Your task to perform on an android device: Go to wifi settings Image 0: 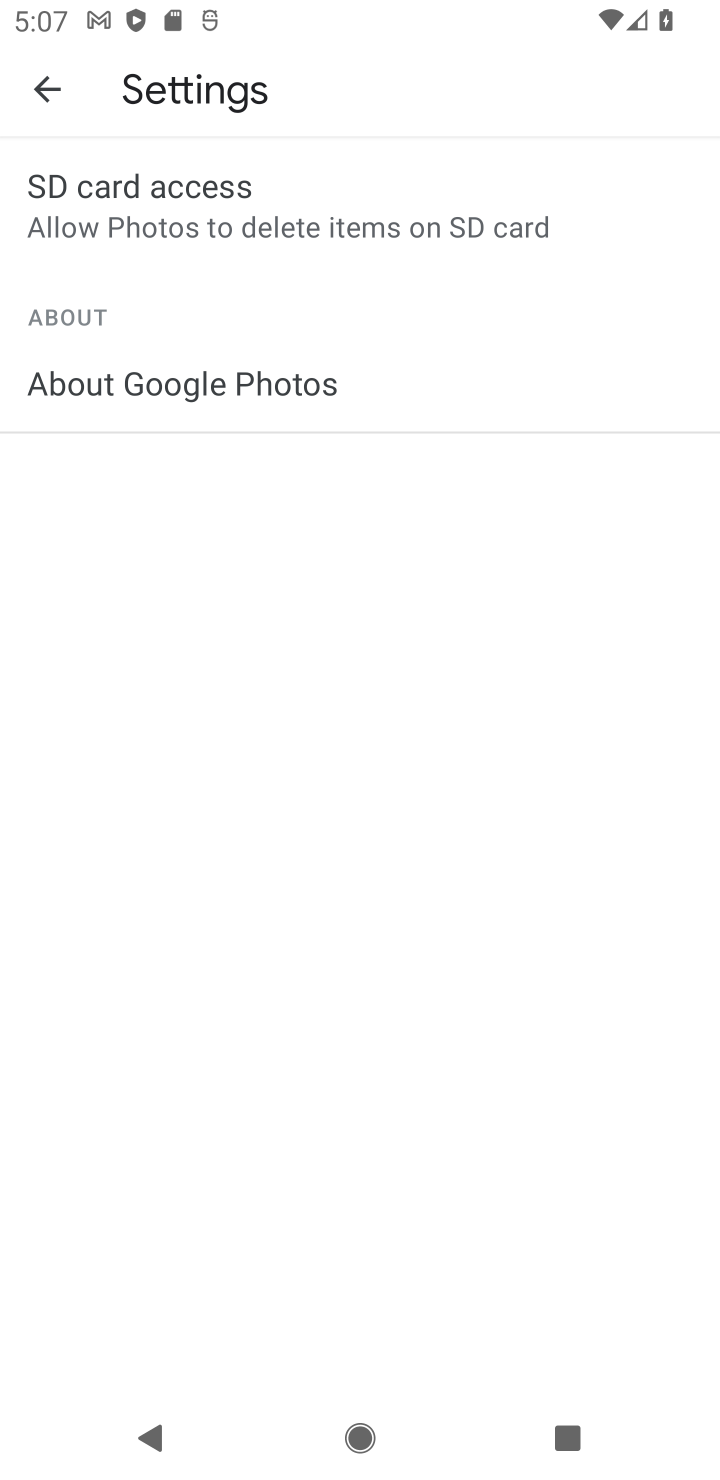
Step 0: press home button
Your task to perform on an android device: Go to wifi settings Image 1: 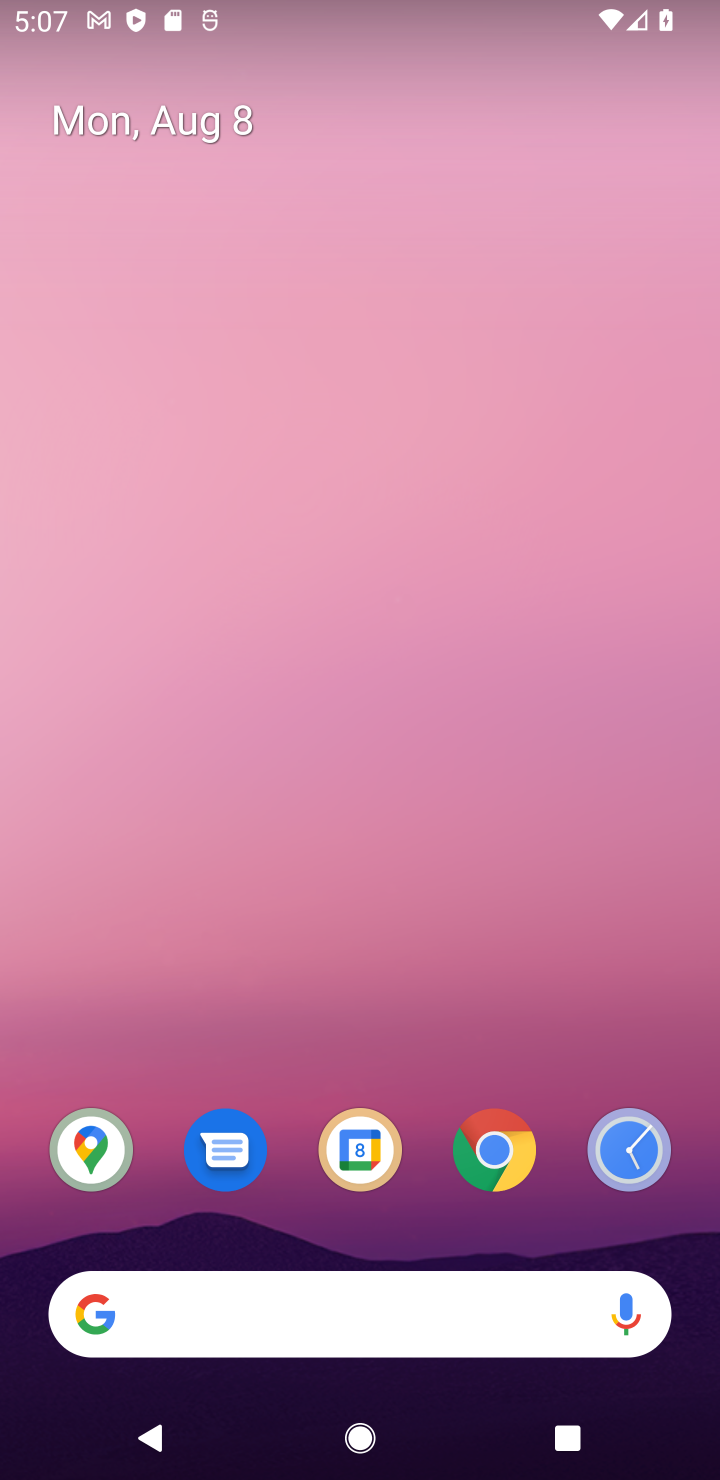
Step 1: drag from (439, 1239) to (405, 325)
Your task to perform on an android device: Go to wifi settings Image 2: 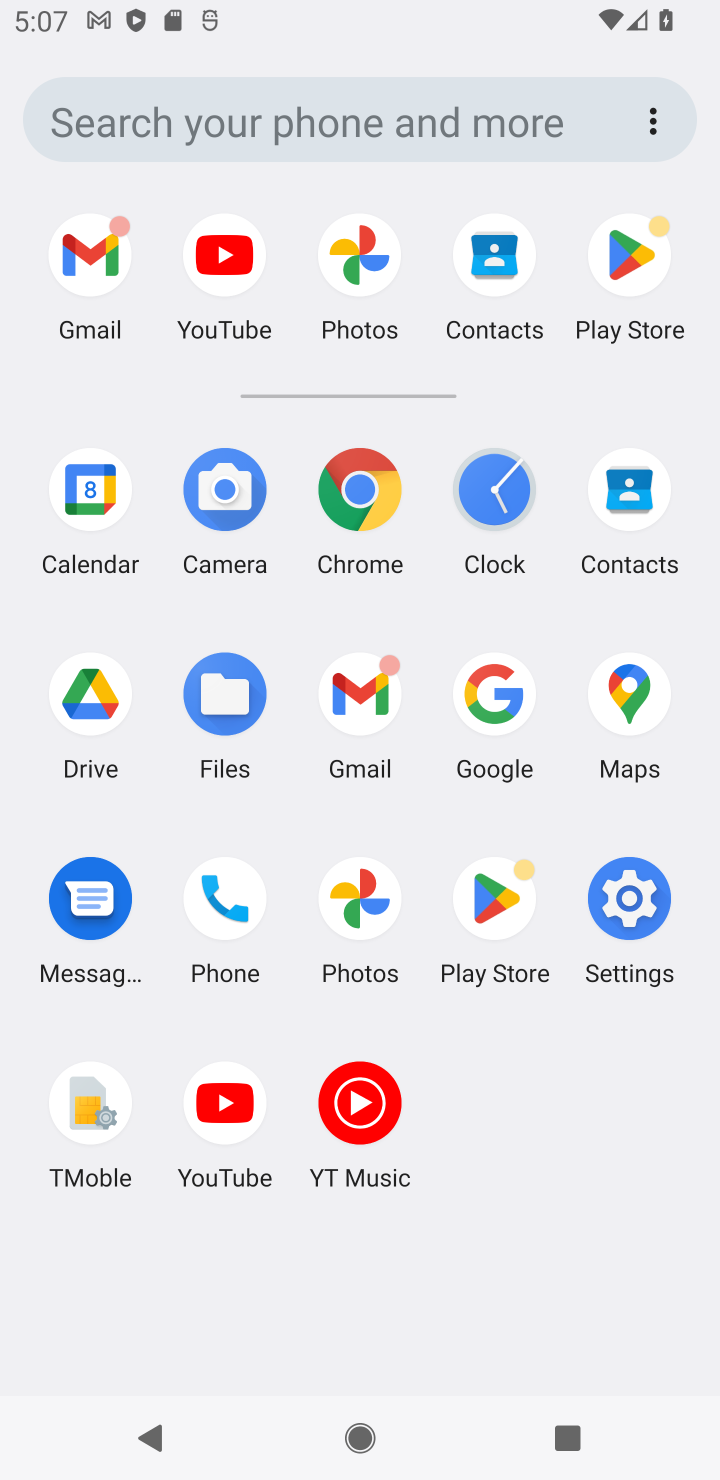
Step 2: click (640, 901)
Your task to perform on an android device: Go to wifi settings Image 3: 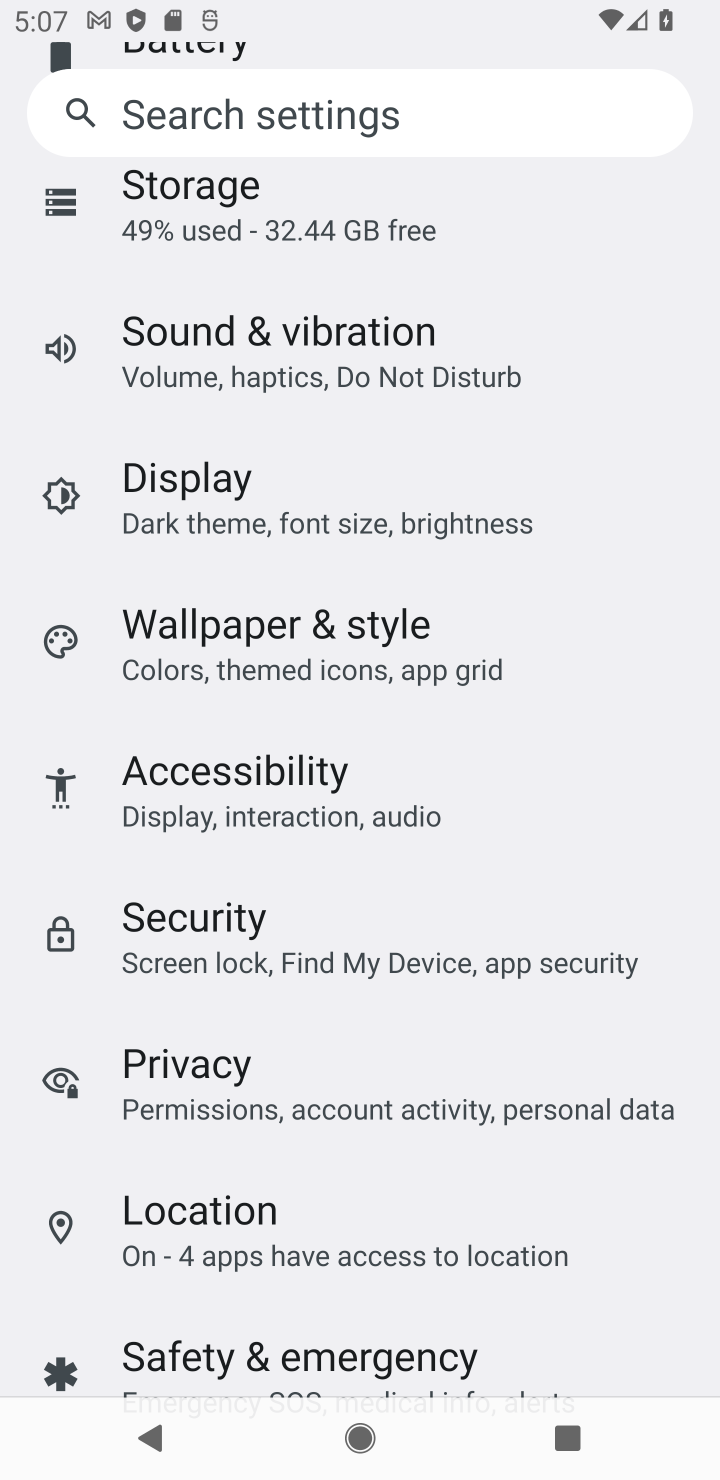
Step 3: drag from (443, 302) to (411, 1226)
Your task to perform on an android device: Go to wifi settings Image 4: 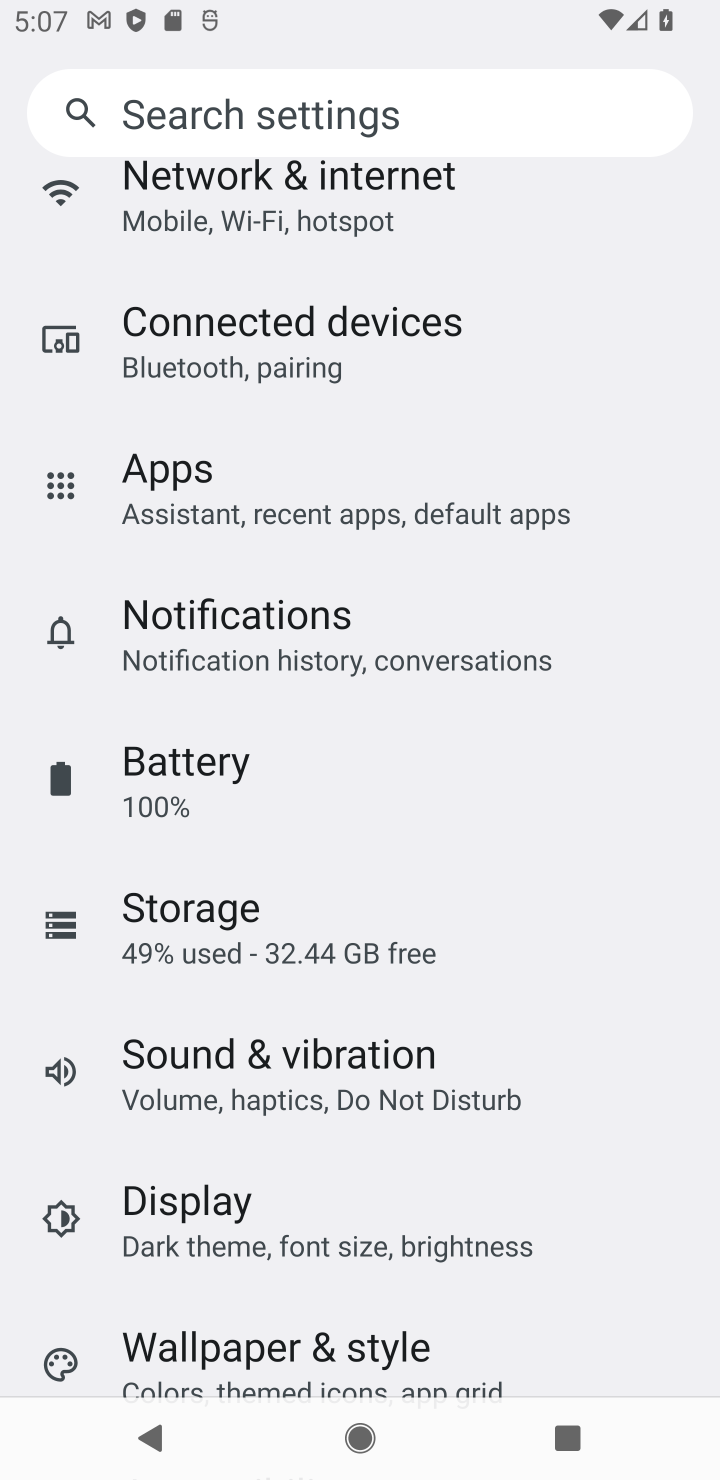
Step 4: click (280, 200)
Your task to perform on an android device: Go to wifi settings Image 5: 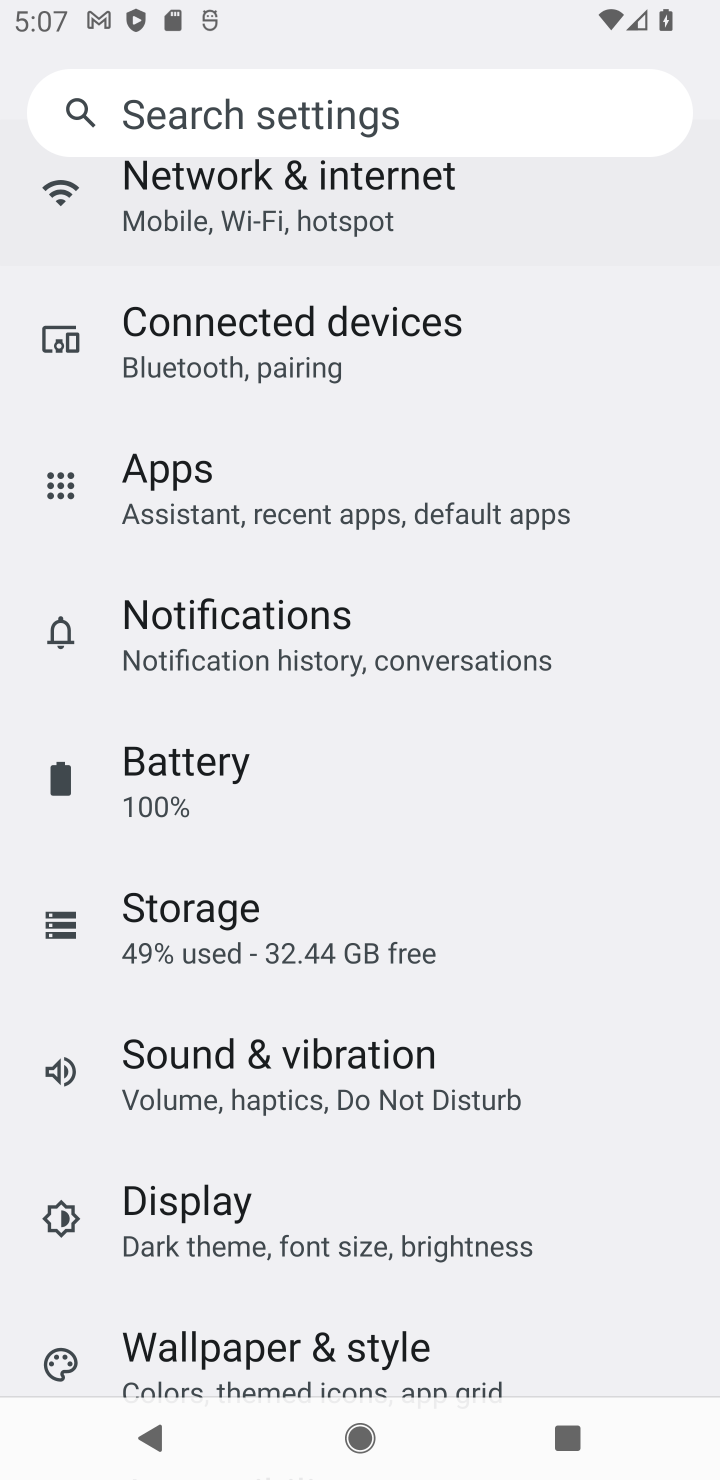
Step 5: task complete